Your task to perform on an android device: open app "ColorNote Notepad Notes" Image 0: 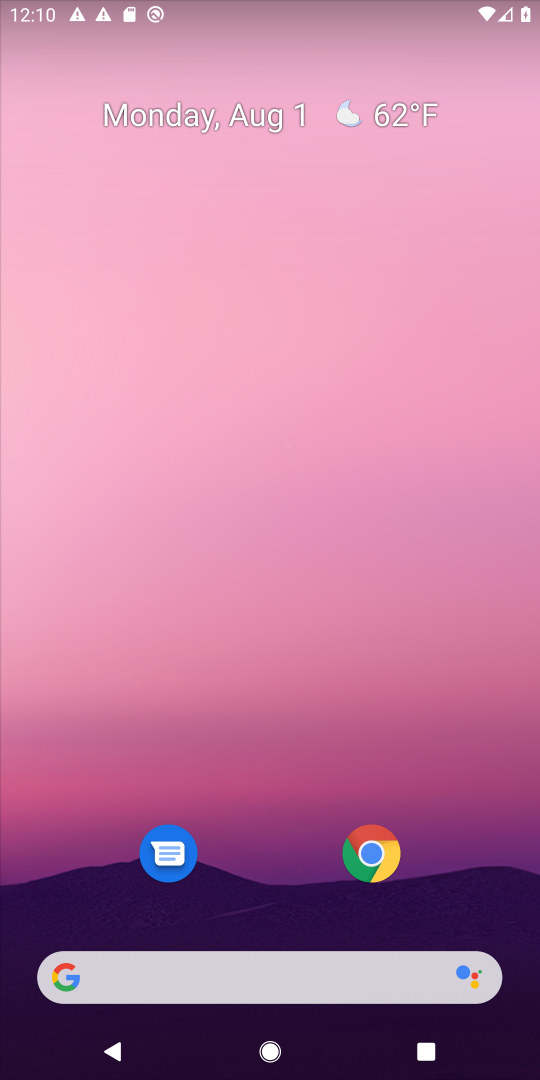
Step 0: drag from (305, 973) to (305, 130)
Your task to perform on an android device: open app "ColorNote Notepad Notes" Image 1: 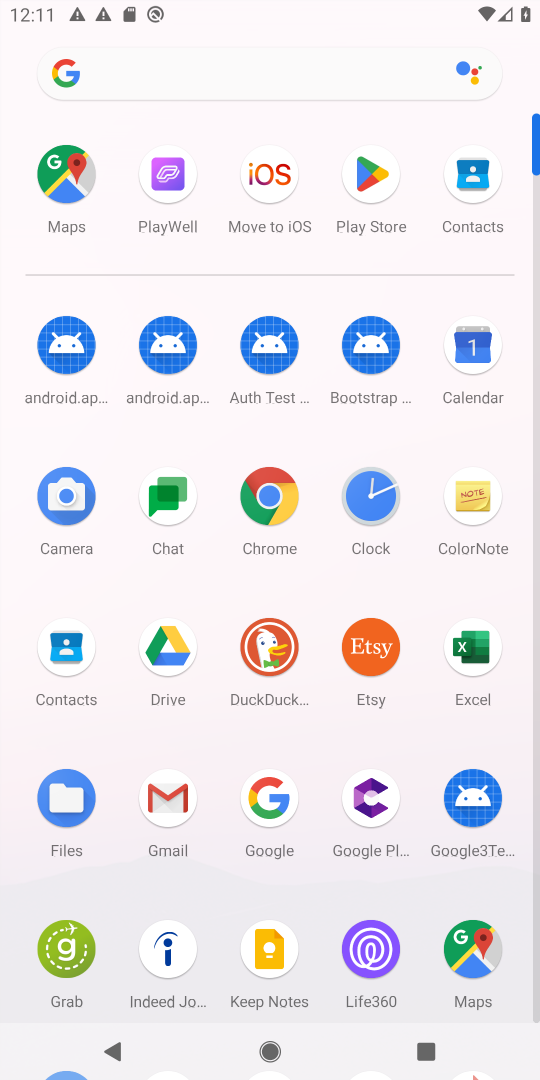
Step 1: drag from (332, 967) to (315, 378)
Your task to perform on an android device: open app "ColorNote Notepad Notes" Image 2: 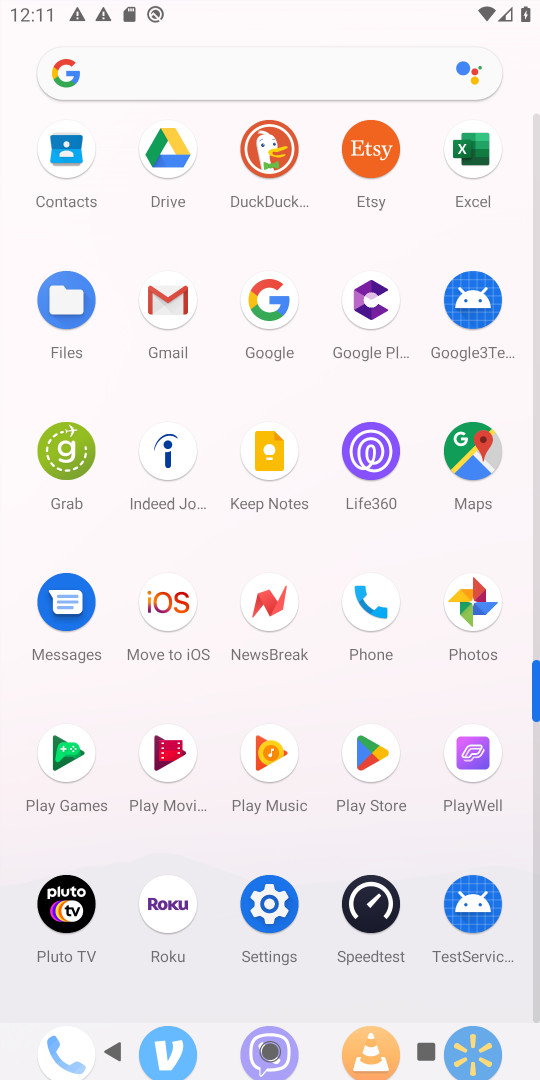
Step 2: click (365, 754)
Your task to perform on an android device: open app "ColorNote Notepad Notes" Image 3: 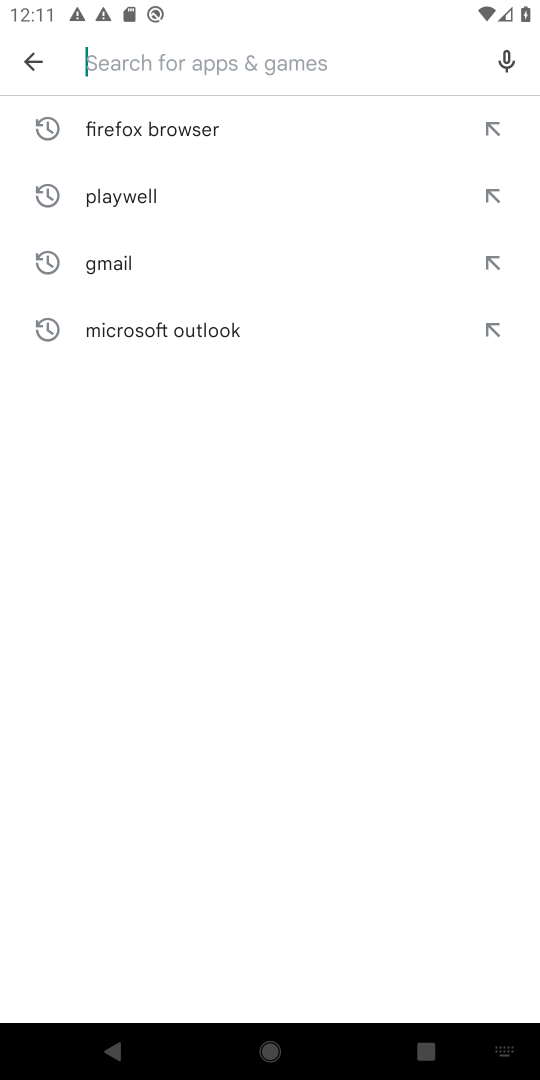
Step 3: type "ColorNote Notepad Notes"
Your task to perform on an android device: open app "ColorNote Notepad Notes" Image 4: 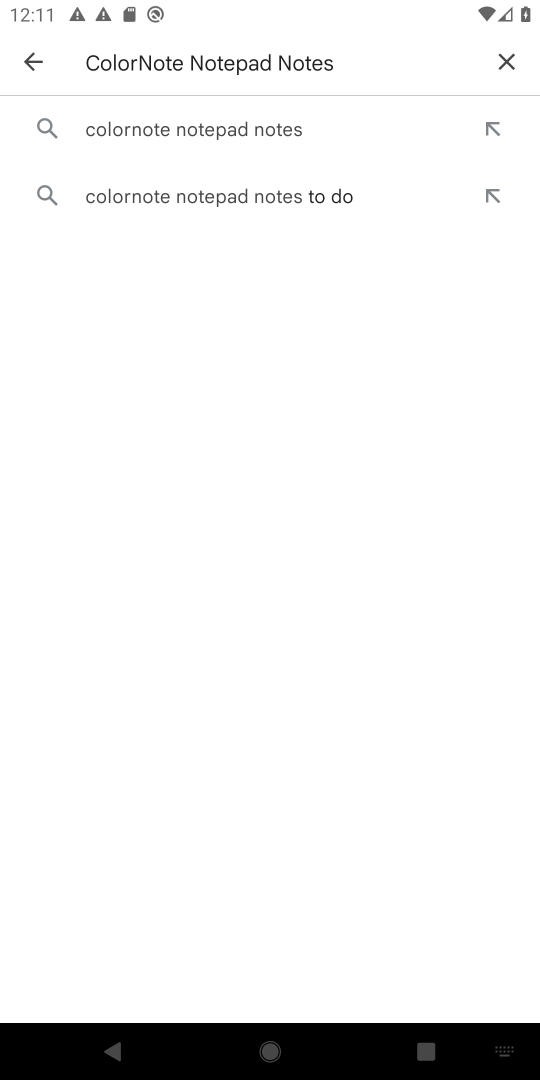
Step 4: click (157, 138)
Your task to perform on an android device: open app "ColorNote Notepad Notes" Image 5: 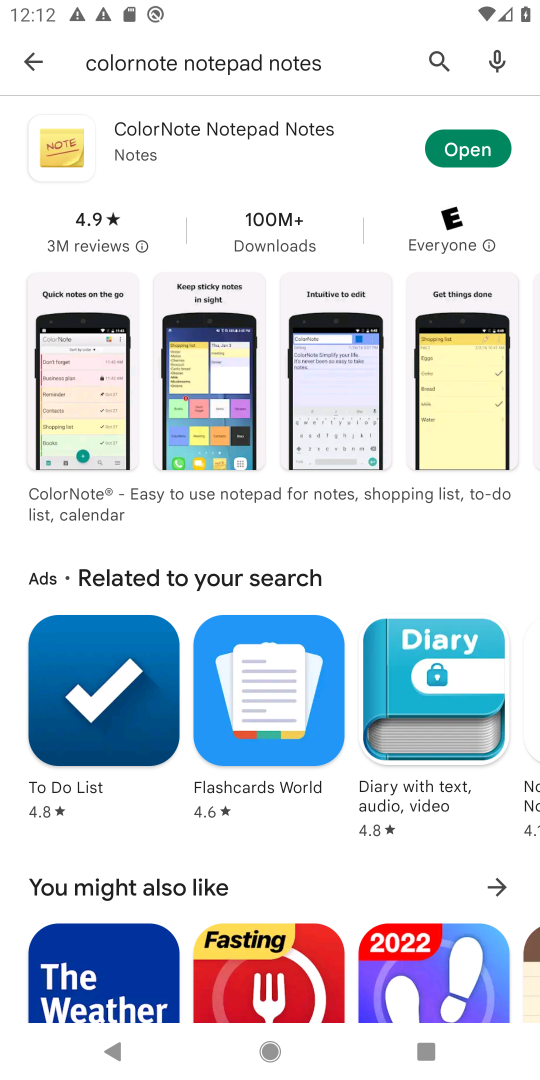
Step 5: click (482, 141)
Your task to perform on an android device: open app "ColorNote Notepad Notes" Image 6: 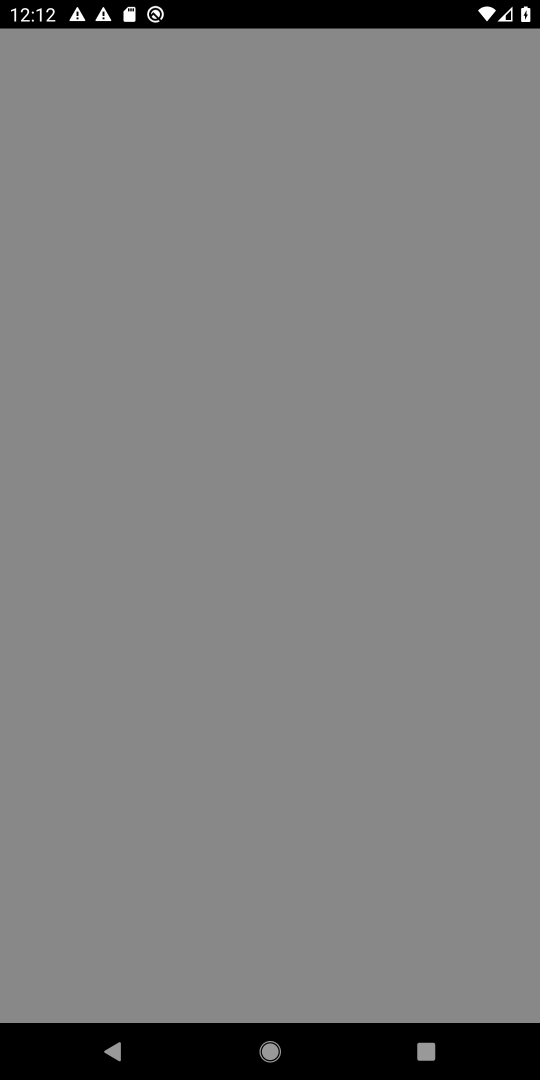
Step 6: task complete